Your task to perform on an android device: Search for sushi restaurants on Maps Image 0: 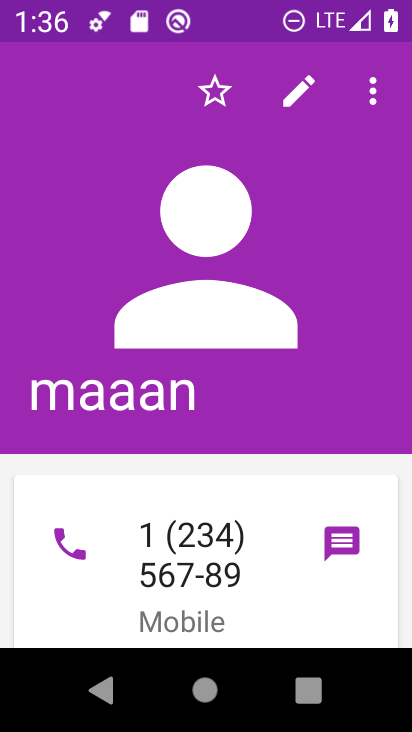
Step 0: press home button
Your task to perform on an android device: Search for sushi restaurants on Maps Image 1: 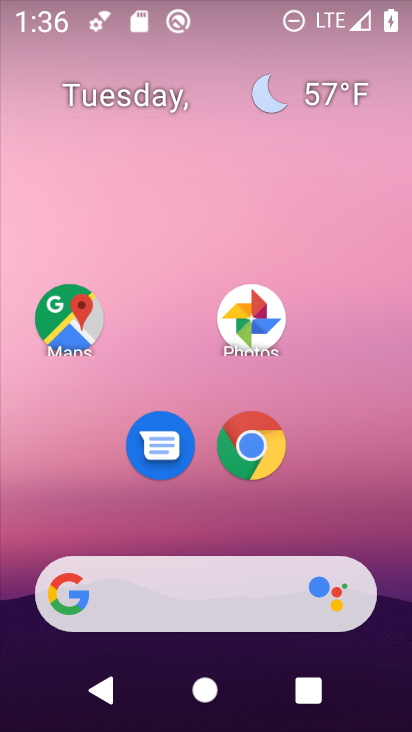
Step 1: drag from (382, 554) to (382, 349)
Your task to perform on an android device: Search for sushi restaurants on Maps Image 2: 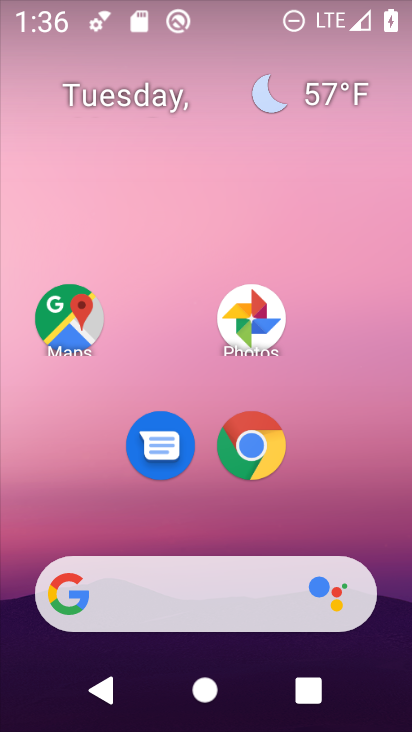
Step 2: drag from (385, 559) to (399, 234)
Your task to perform on an android device: Search for sushi restaurants on Maps Image 3: 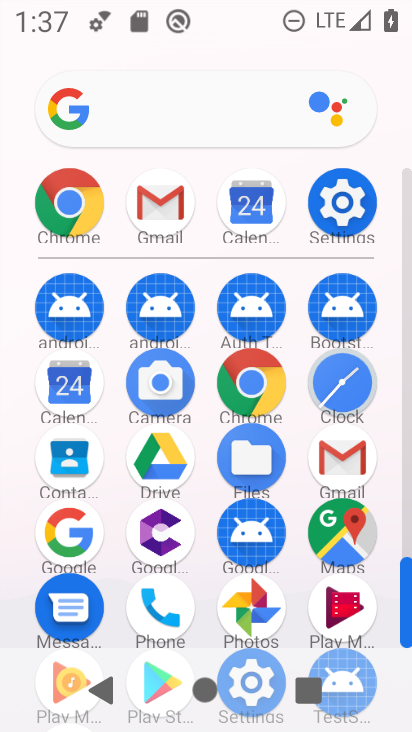
Step 3: click (354, 547)
Your task to perform on an android device: Search for sushi restaurants on Maps Image 4: 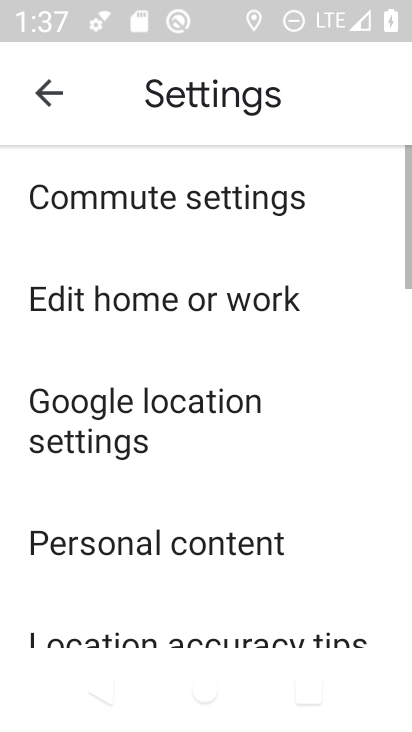
Step 4: click (57, 115)
Your task to perform on an android device: Search for sushi restaurants on Maps Image 5: 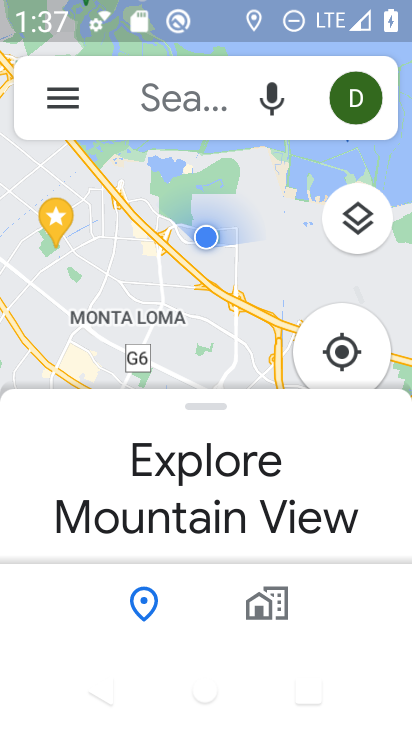
Step 5: click (176, 113)
Your task to perform on an android device: Search for sushi restaurants on Maps Image 6: 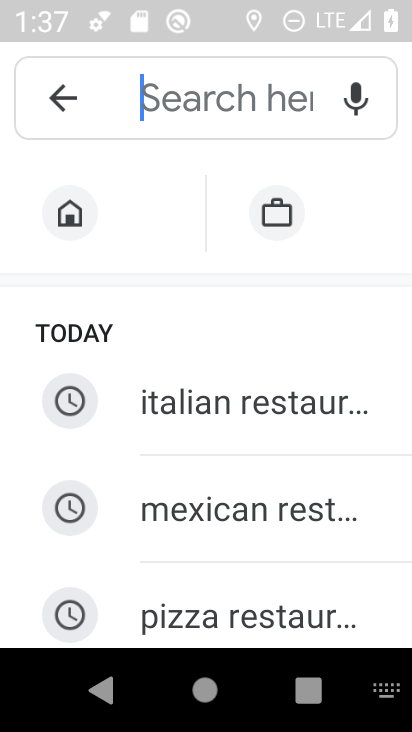
Step 6: type "sushi restaurabts"
Your task to perform on an android device: Search for sushi restaurants on Maps Image 7: 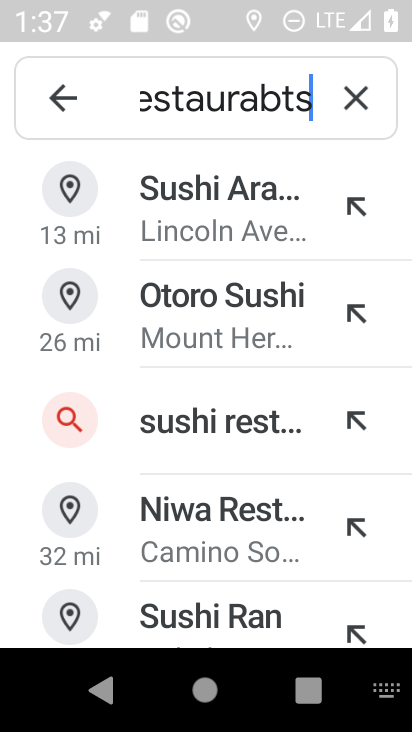
Step 7: click (240, 435)
Your task to perform on an android device: Search for sushi restaurants on Maps Image 8: 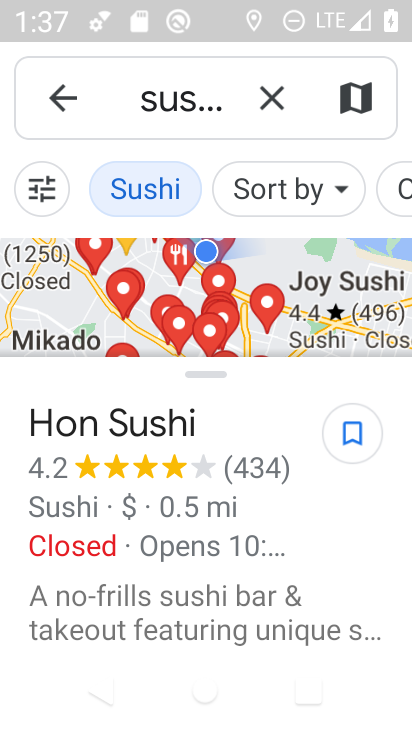
Step 8: task complete